Your task to perform on an android device: Open Google Maps Image 0: 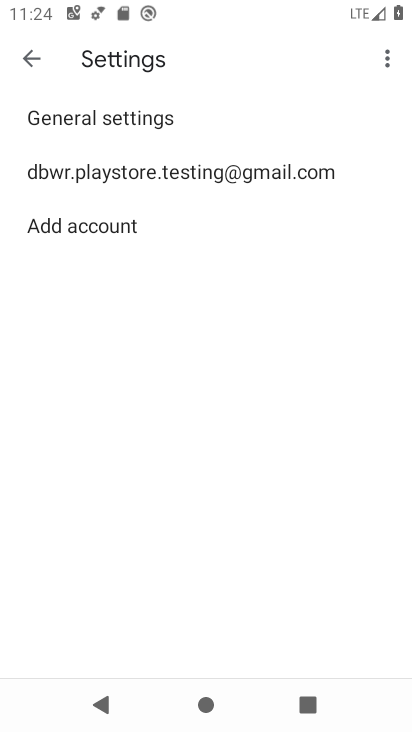
Step 0: press home button
Your task to perform on an android device: Open Google Maps Image 1: 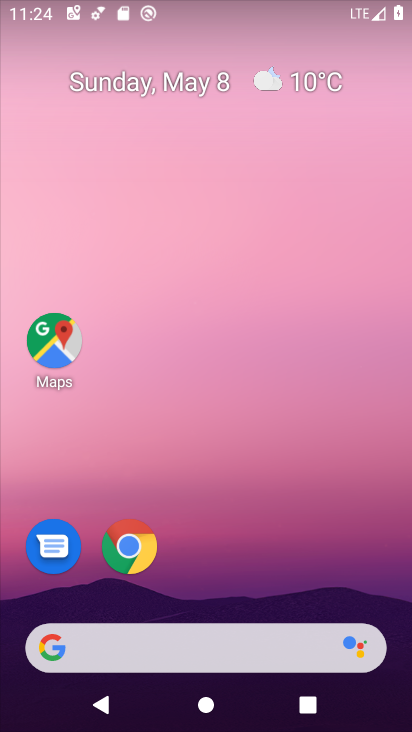
Step 1: click (55, 339)
Your task to perform on an android device: Open Google Maps Image 2: 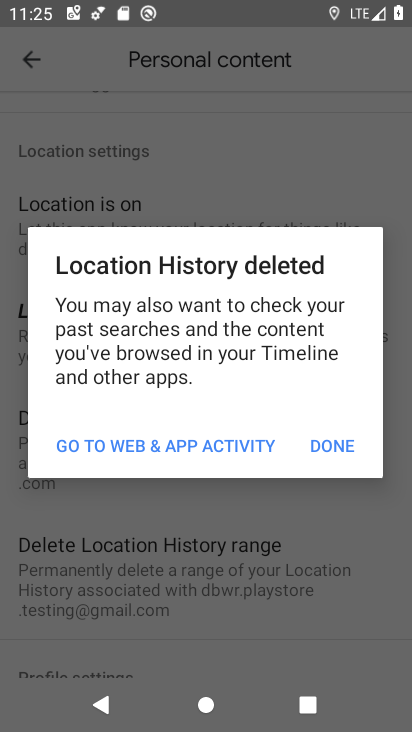
Step 2: task complete